Your task to perform on an android device: Open Google Image 0: 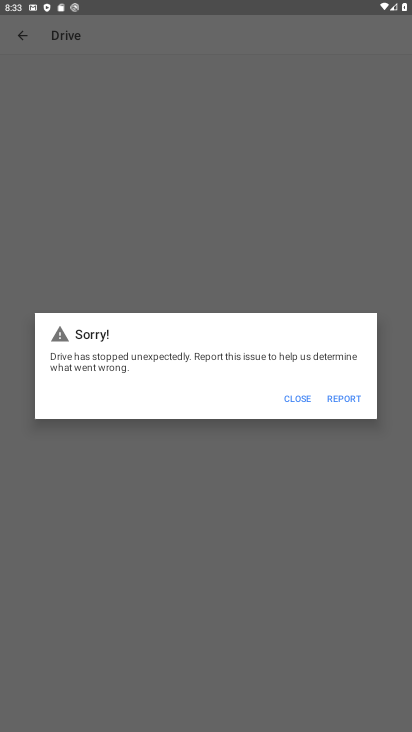
Step 0: press home button
Your task to perform on an android device: Open Google Image 1: 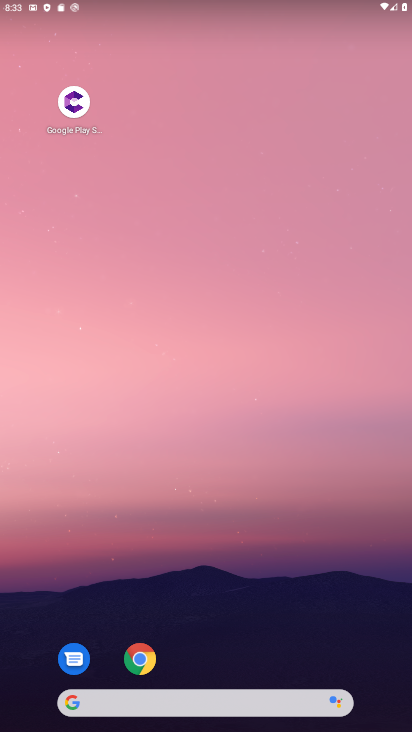
Step 1: drag from (209, 723) to (192, 187)
Your task to perform on an android device: Open Google Image 2: 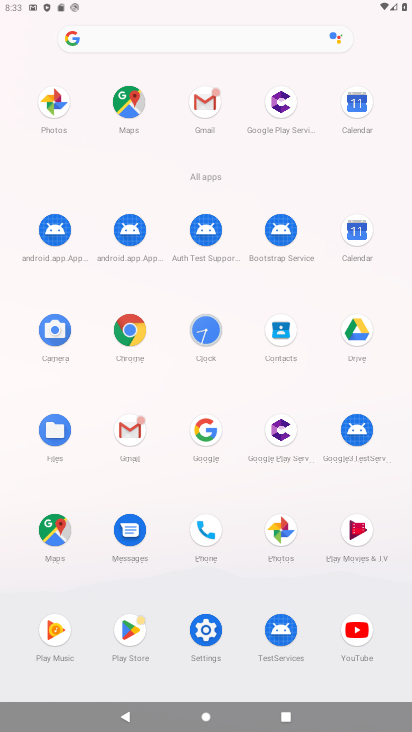
Step 2: click (201, 418)
Your task to perform on an android device: Open Google Image 3: 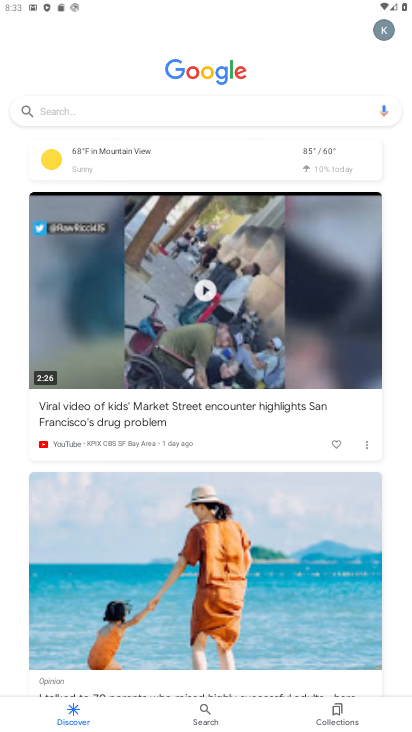
Step 3: task complete